Your task to perform on an android device: empty trash in google photos Image 0: 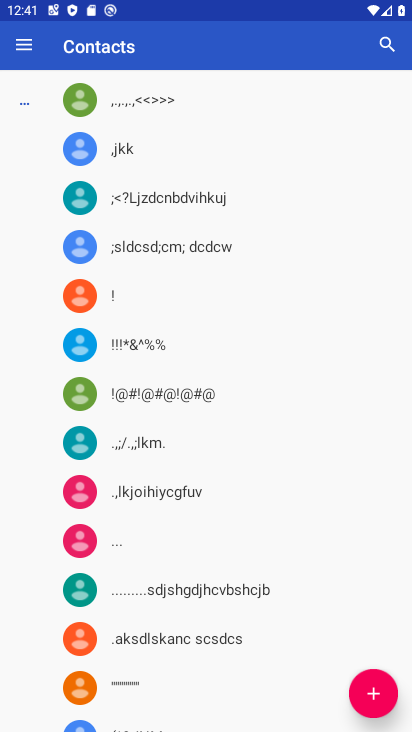
Step 0: press home button
Your task to perform on an android device: empty trash in google photos Image 1: 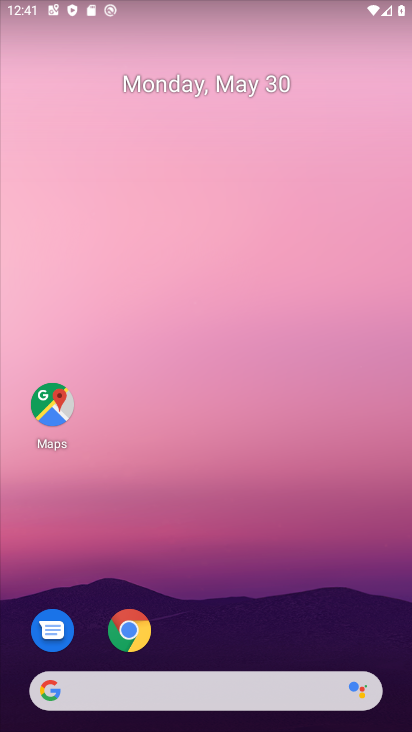
Step 1: drag from (180, 653) to (294, 71)
Your task to perform on an android device: empty trash in google photos Image 2: 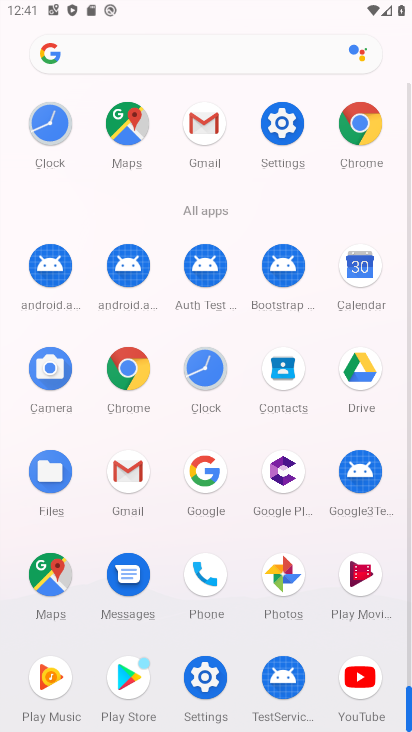
Step 2: click (292, 555)
Your task to perform on an android device: empty trash in google photos Image 3: 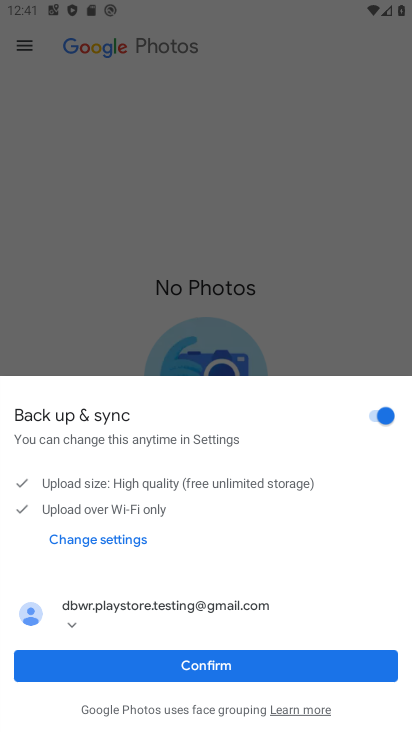
Step 3: click (221, 672)
Your task to perform on an android device: empty trash in google photos Image 4: 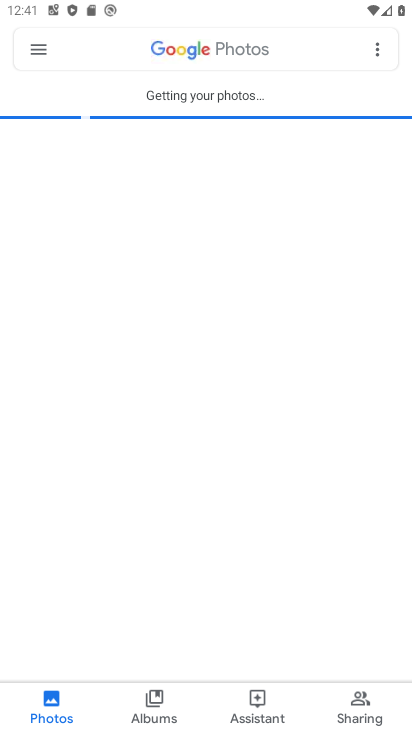
Step 4: click (30, 51)
Your task to perform on an android device: empty trash in google photos Image 5: 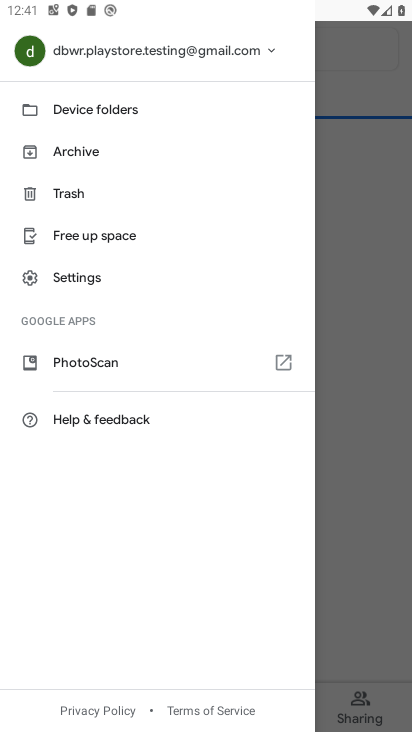
Step 5: click (138, 193)
Your task to perform on an android device: empty trash in google photos Image 6: 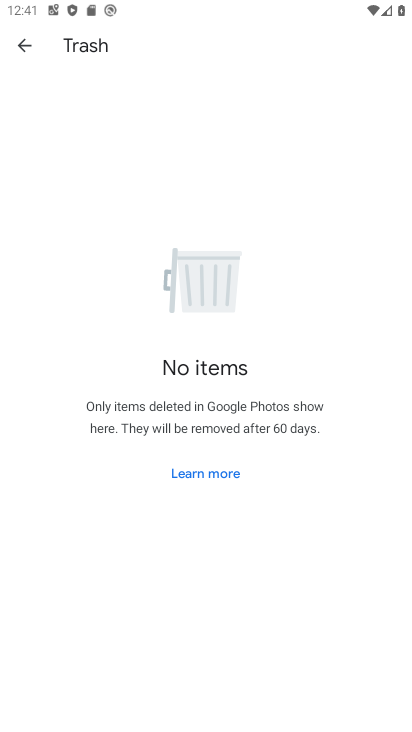
Step 6: task complete